Your task to perform on an android device: Open Google Chrome and open the bookmarks view Image 0: 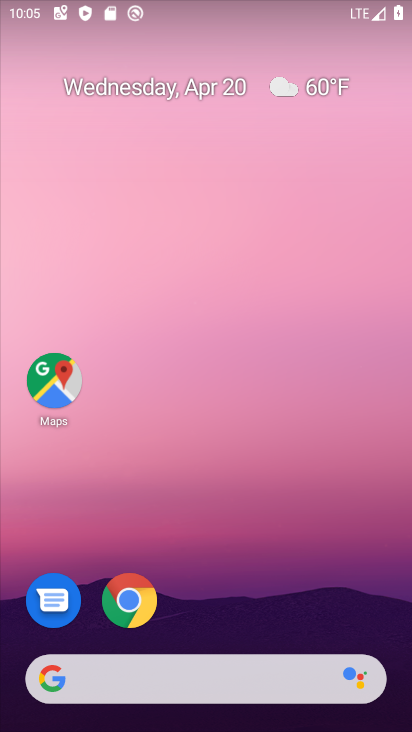
Step 0: click (145, 601)
Your task to perform on an android device: Open Google Chrome and open the bookmarks view Image 1: 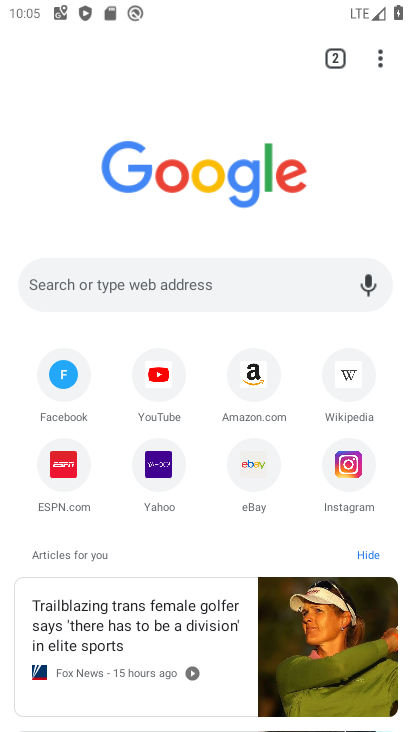
Step 1: click (382, 61)
Your task to perform on an android device: Open Google Chrome and open the bookmarks view Image 2: 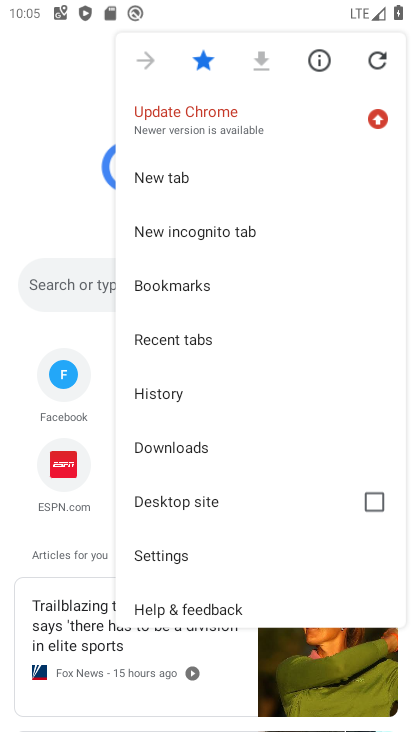
Step 2: click (180, 289)
Your task to perform on an android device: Open Google Chrome and open the bookmarks view Image 3: 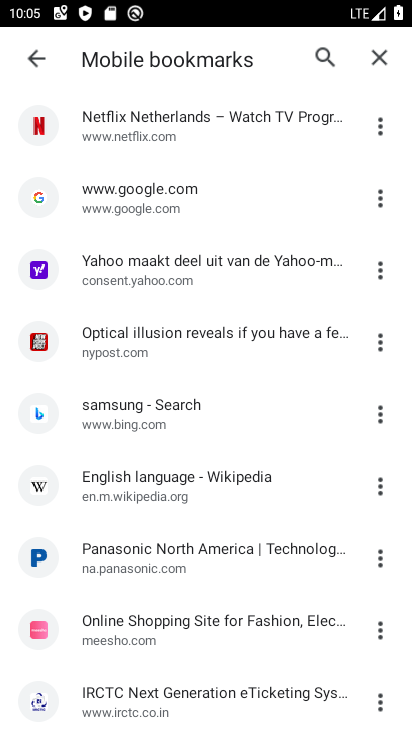
Step 3: task complete